Your task to perform on an android device: Go to battery settings Image 0: 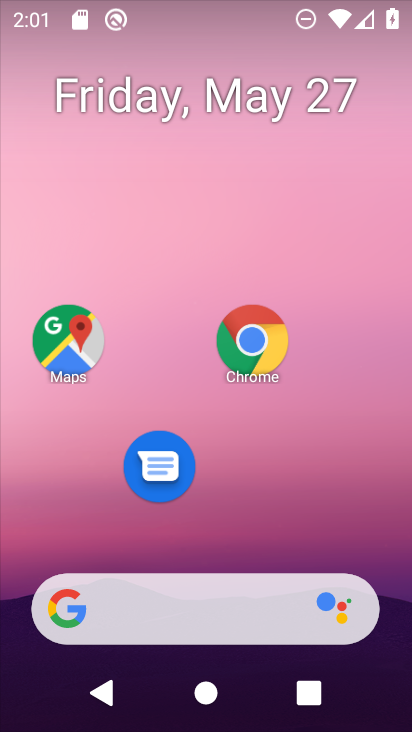
Step 0: drag from (317, 545) to (271, 5)
Your task to perform on an android device: Go to battery settings Image 1: 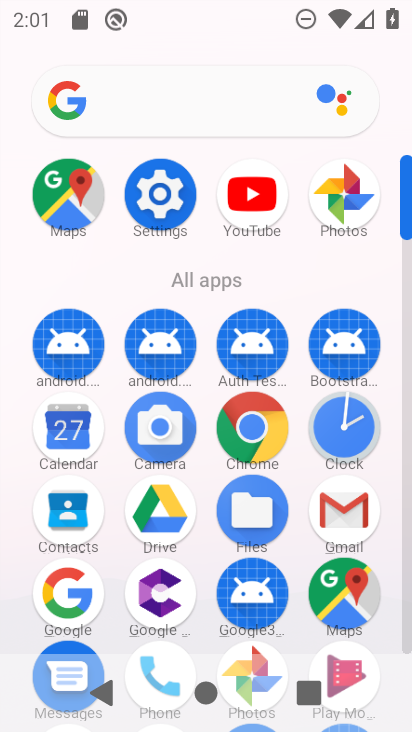
Step 1: click (168, 213)
Your task to perform on an android device: Go to battery settings Image 2: 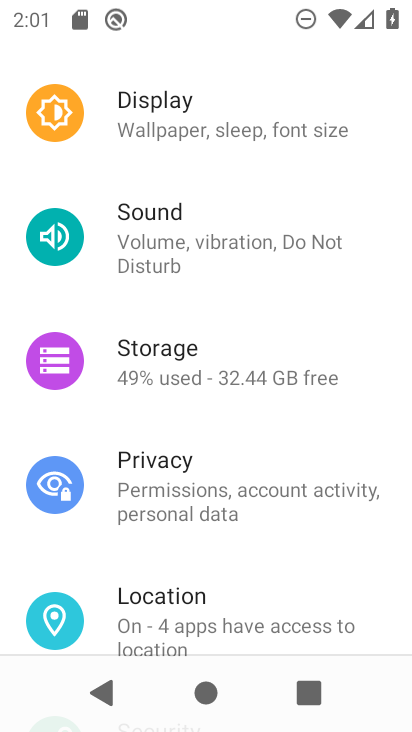
Step 2: drag from (163, 319) to (155, 609)
Your task to perform on an android device: Go to battery settings Image 3: 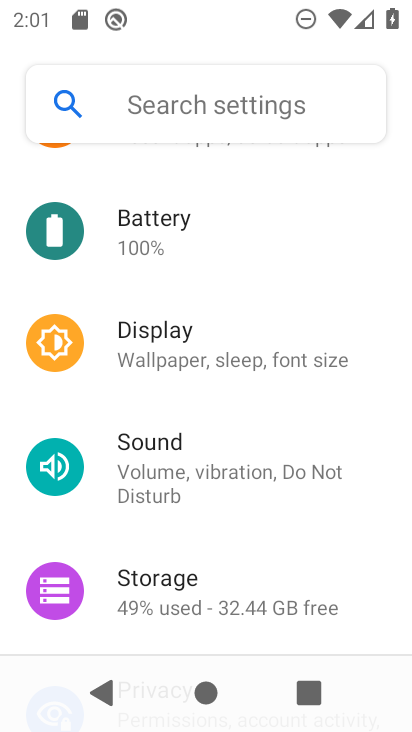
Step 3: click (92, 209)
Your task to perform on an android device: Go to battery settings Image 4: 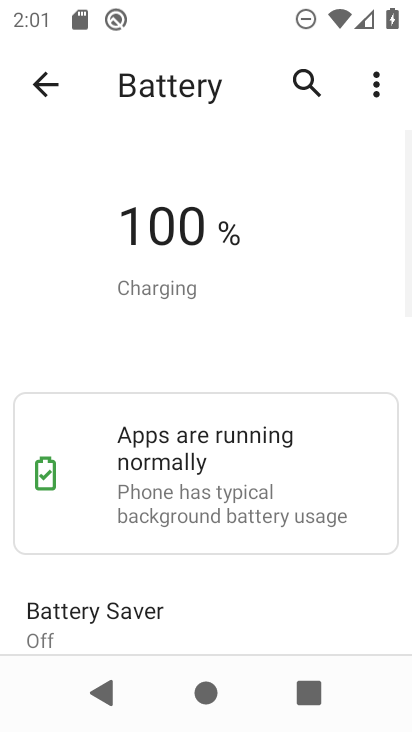
Step 4: task complete